Your task to perform on an android device: empty trash in the gmail app Image 0: 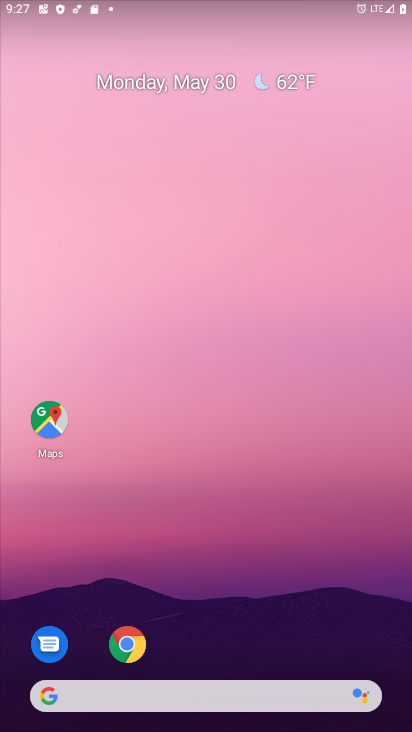
Step 0: drag from (371, 651) to (339, 109)
Your task to perform on an android device: empty trash in the gmail app Image 1: 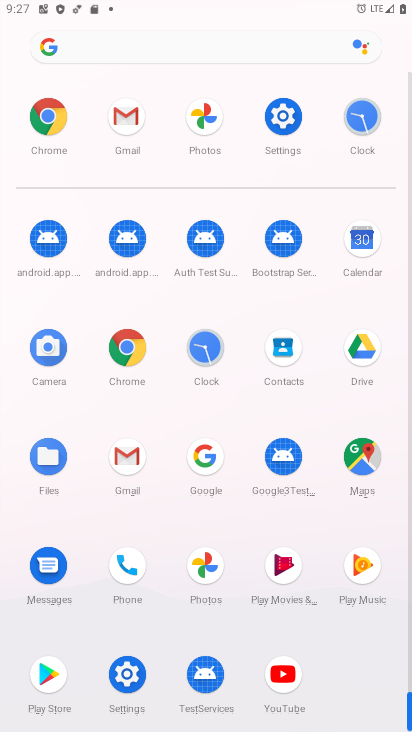
Step 1: click (126, 459)
Your task to perform on an android device: empty trash in the gmail app Image 2: 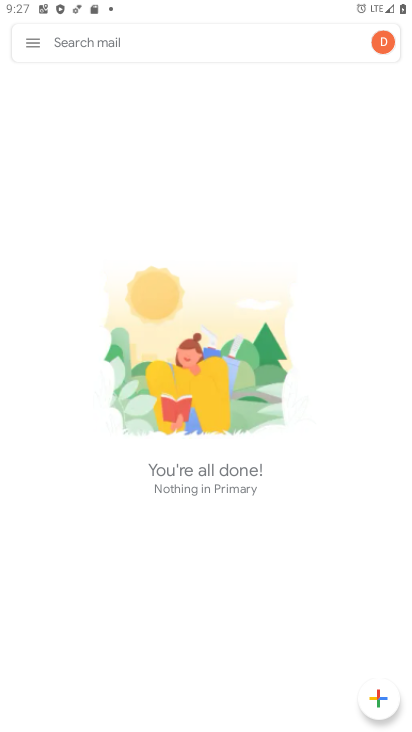
Step 2: click (31, 38)
Your task to perform on an android device: empty trash in the gmail app Image 3: 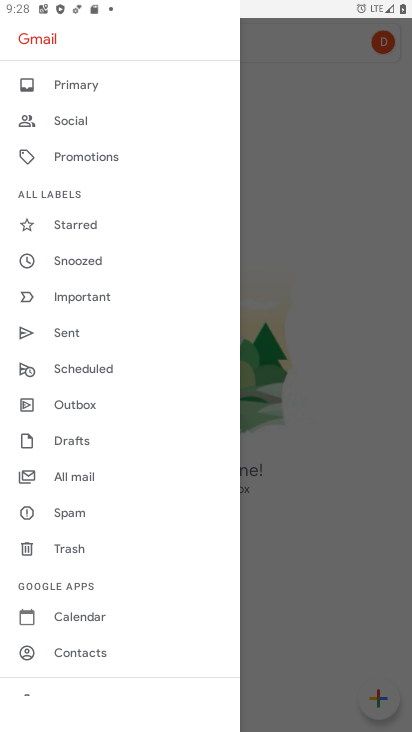
Step 3: click (70, 551)
Your task to perform on an android device: empty trash in the gmail app Image 4: 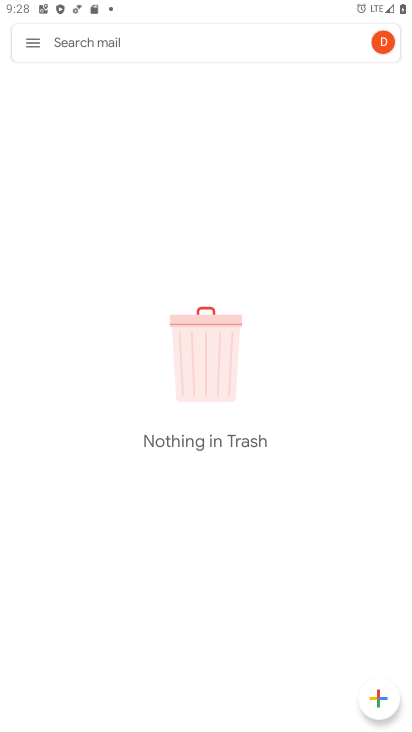
Step 4: task complete